Your task to perform on an android device: Open accessibility settings Image 0: 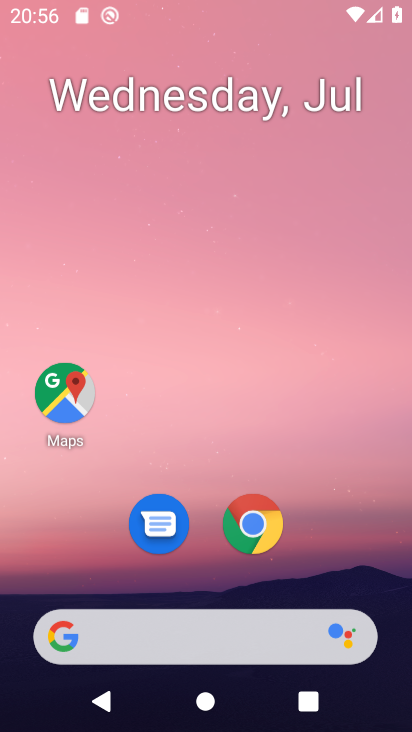
Step 0: press home button
Your task to perform on an android device: Open accessibility settings Image 1: 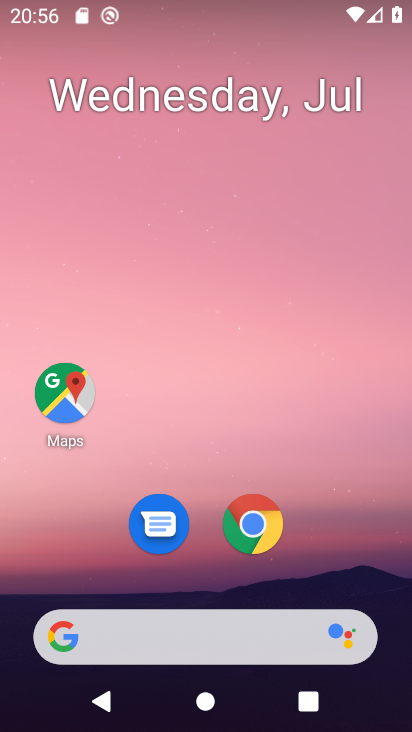
Step 1: drag from (179, 629) to (247, 183)
Your task to perform on an android device: Open accessibility settings Image 2: 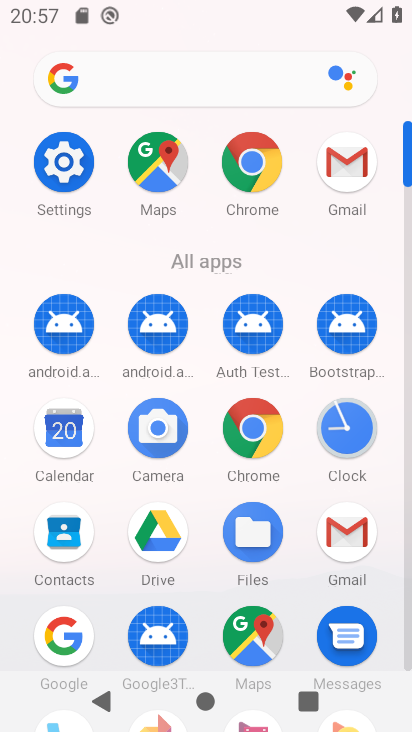
Step 2: drag from (201, 584) to (262, 232)
Your task to perform on an android device: Open accessibility settings Image 3: 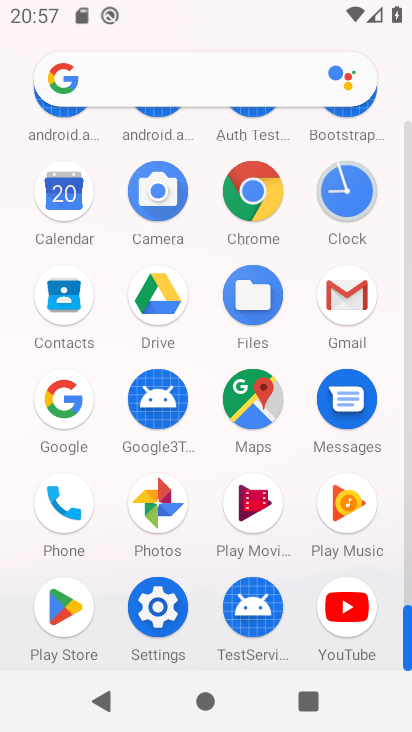
Step 3: click (154, 611)
Your task to perform on an android device: Open accessibility settings Image 4: 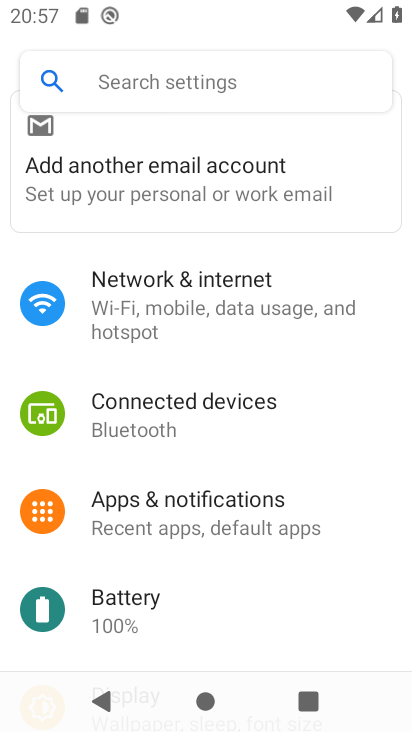
Step 4: drag from (160, 632) to (298, 185)
Your task to perform on an android device: Open accessibility settings Image 5: 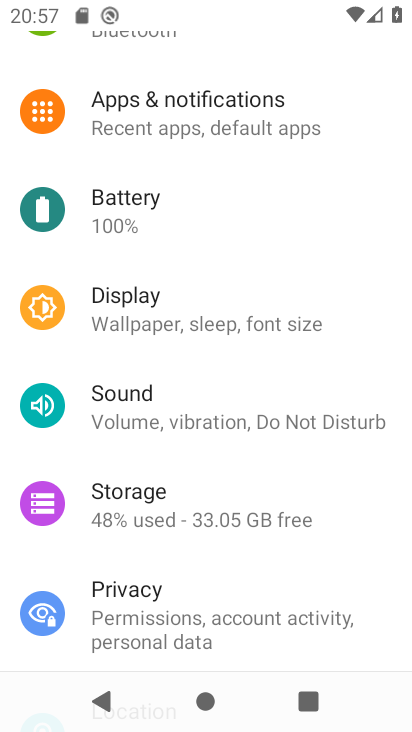
Step 5: drag from (215, 595) to (308, 115)
Your task to perform on an android device: Open accessibility settings Image 6: 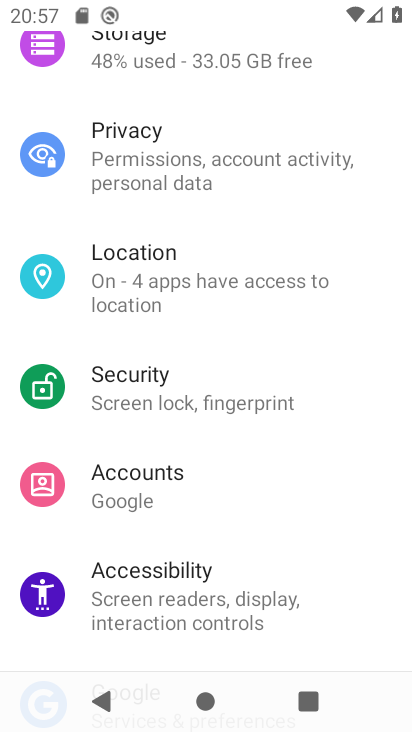
Step 6: click (153, 583)
Your task to perform on an android device: Open accessibility settings Image 7: 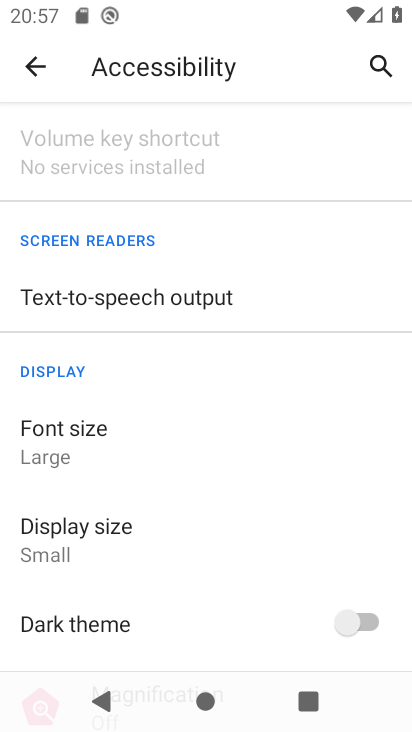
Step 7: task complete